Your task to perform on an android device: turn on the 12-hour format for clock Image 0: 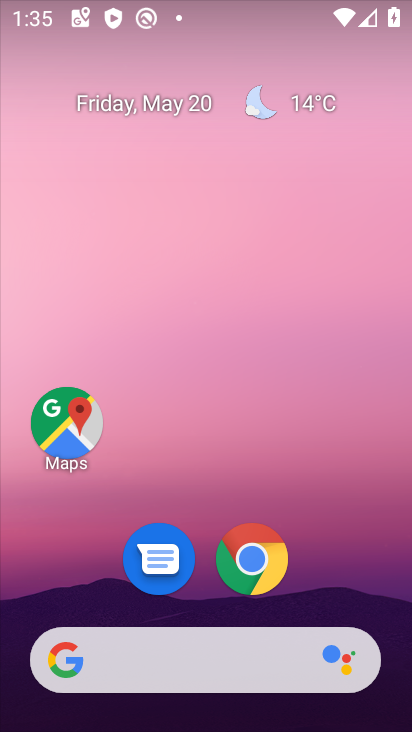
Step 0: drag from (374, 582) to (246, 119)
Your task to perform on an android device: turn on the 12-hour format for clock Image 1: 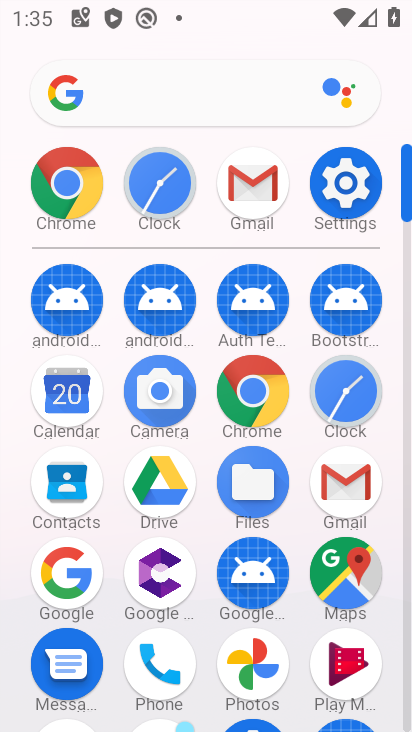
Step 1: click (355, 372)
Your task to perform on an android device: turn on the 12-hour format for clock Image 2: 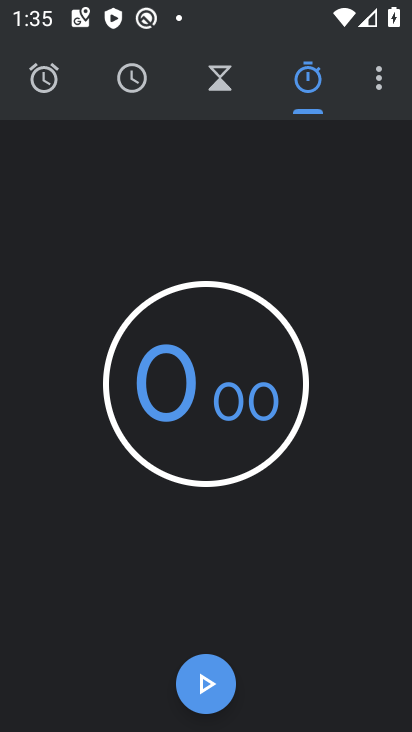
Step 2: click (369, 89)
Your task to perform on an android device: turn on the 12-hour format for clock Image 3: 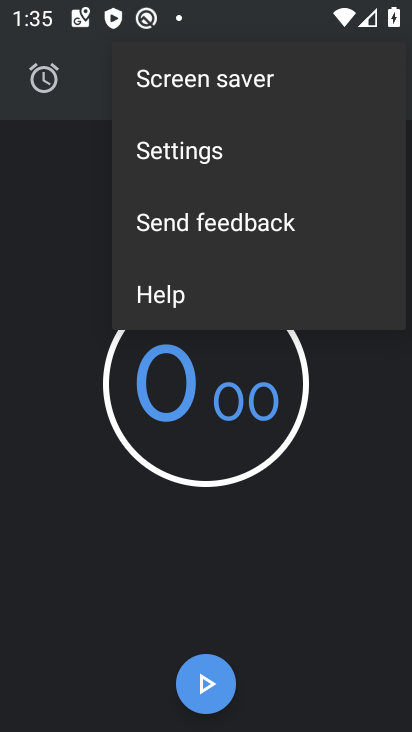
Step 3: click (327, 162)
Your task to perform on an android device: turn on the 12-hour format for clock Image 4: 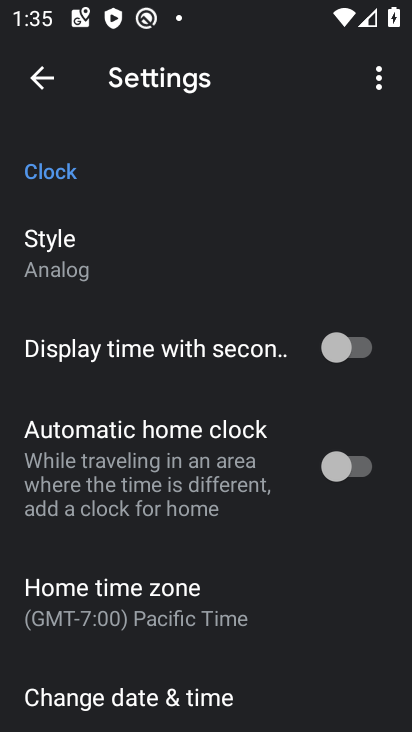
Step 4: drag from (167, 518) to (142, 380)
Your task to perform on an android device: turn on the 12-hour format for clock Image 5: 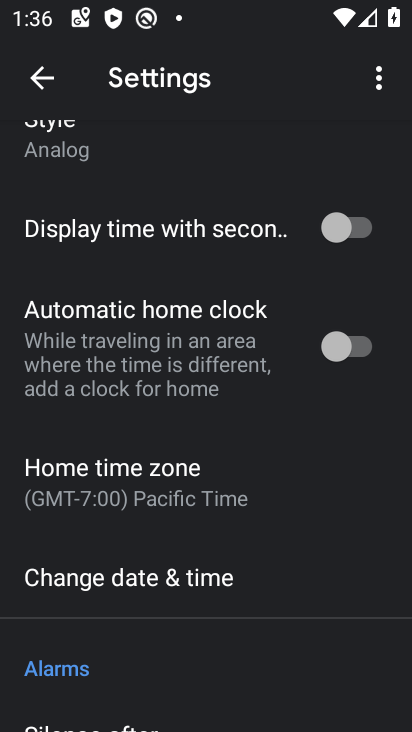
Step 5: click (91, 611)
Your task to perform on an android device: turn on the 12-hour format for clock Image 6: 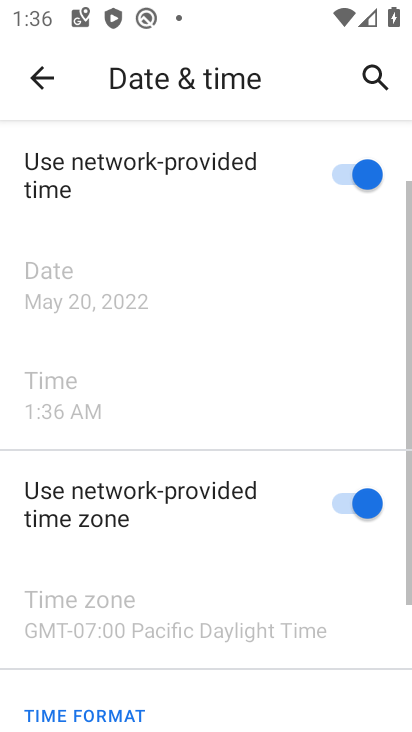
Step 6: task complete